Your task to perform on an android device: See recent photos Image 0: 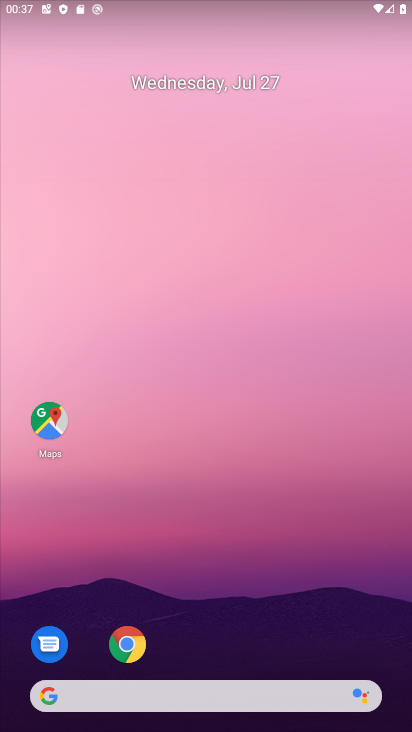
Step 0: drag from (267, 596) to (335, 65)
Your task to perform on an android device: See recent photos Image 1: 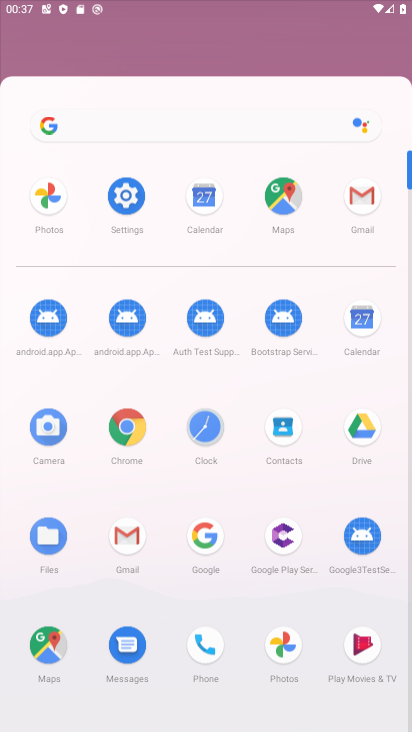
Step 1: drag from (203, 441) to (203, 214)
Your task to perform on an android device: See recent photos Image 2: 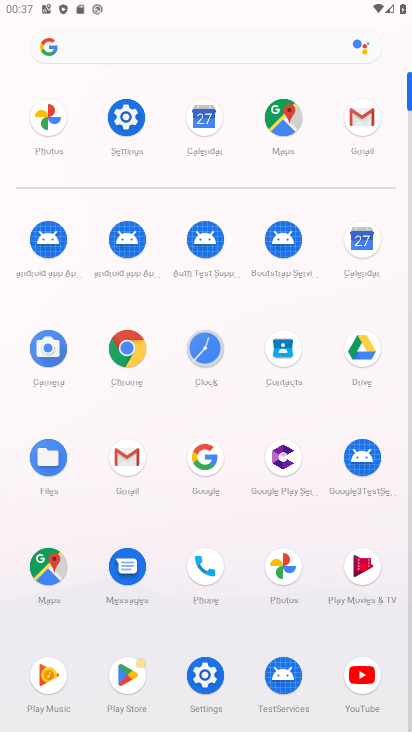
Step 2: drag from (160, 474) to (160, 276)
Your task to perform on an android device: See recent photos Image 3: 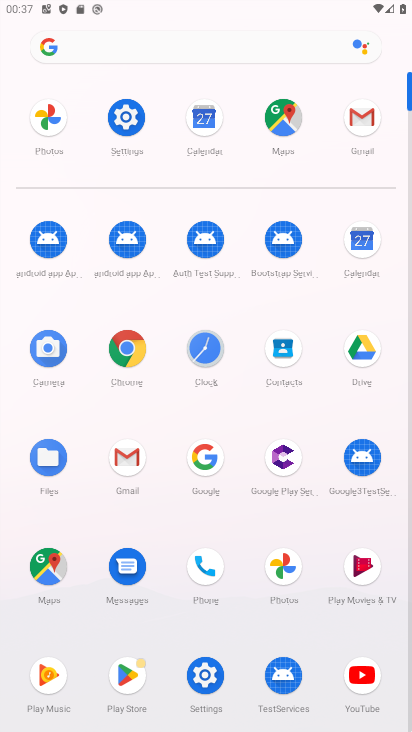
Step 3: click (289, 557)
Your task to perform on an android device: See recent photos Image 4: 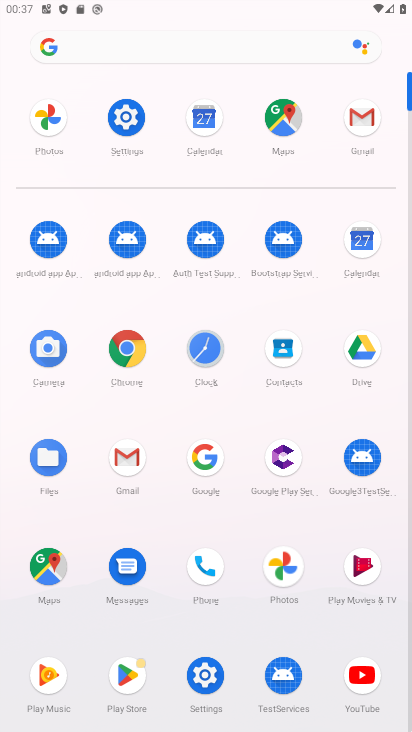
Step 4: click (290, 560)
Your task to perform on an android device: See recent photos Image 5: 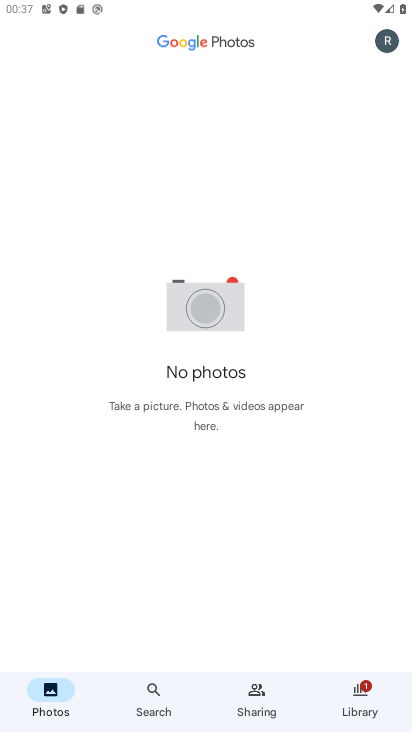
Step 5: click (290, 562)
Your task to perform on an android device: See recent photos Image 6: 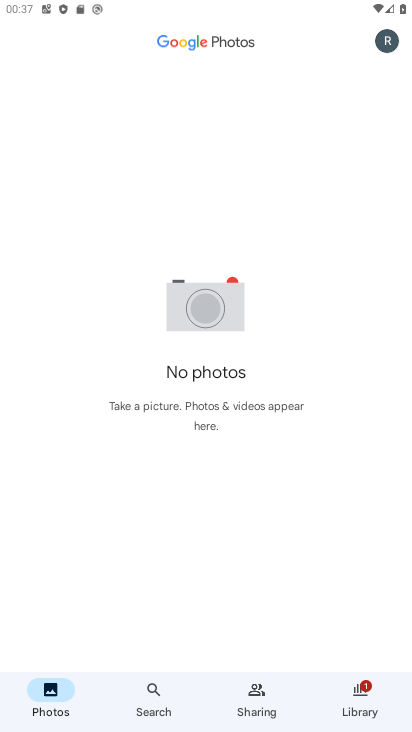
Step 6: click (60, 695)
Your task to perform on an android device: See recent photos Image 7: 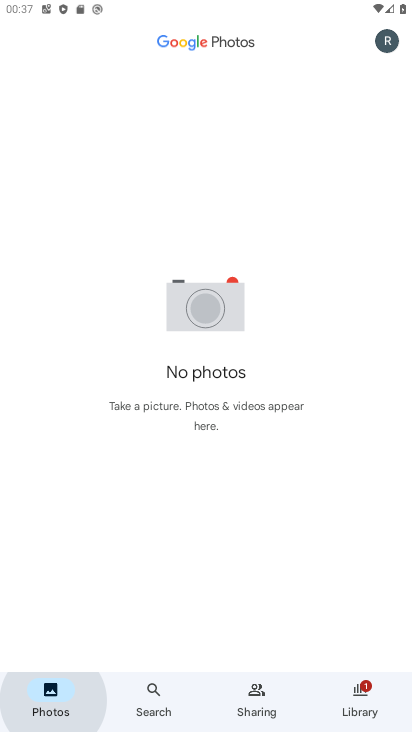
Step 7: click (63, 695)
Your task to perform on an android device: See recent photos Image 8: 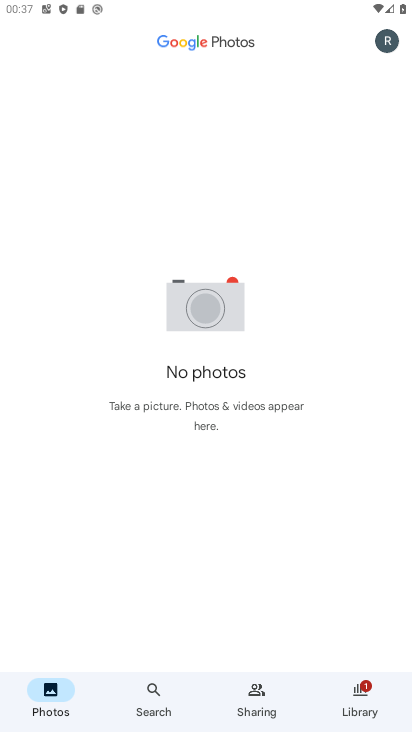
Step 8: task complete